Your task to perform on an android device: turn on notifications settings in the gmail app Image 0: 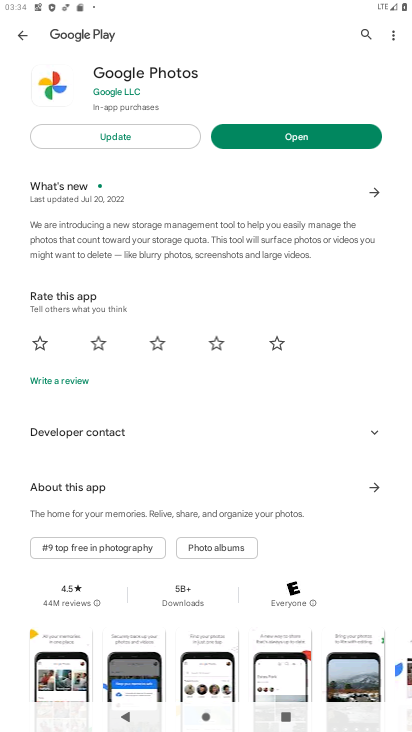
Step 0: press home button
Your task to perform on an android device: turn on notifications settings in the gmail app Image 1: 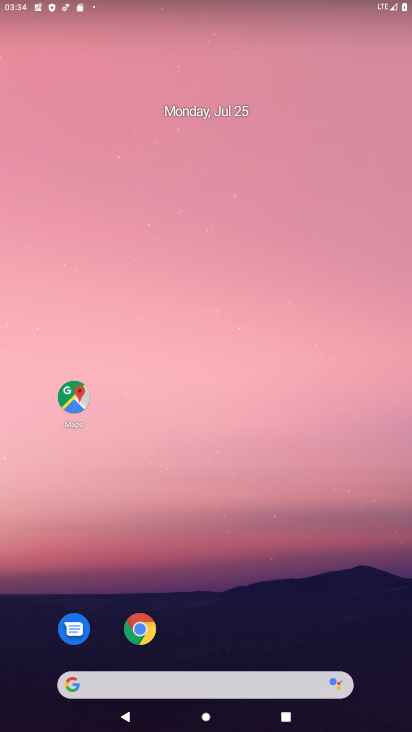
Step 1: drag from (221, 620) to (248, 0)
Your task to perform on an android device: turn on notifications settings in the gmail app Image 2: 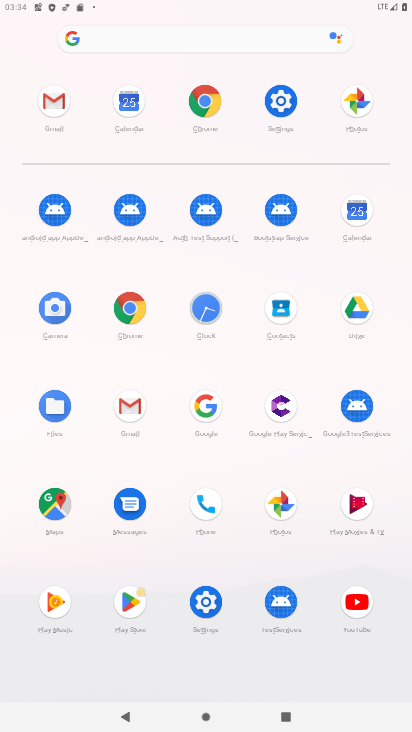
Step 2: click (48, 108)
Your task to perform on an android device: turn on notifications settings in the gmail app Image 3: 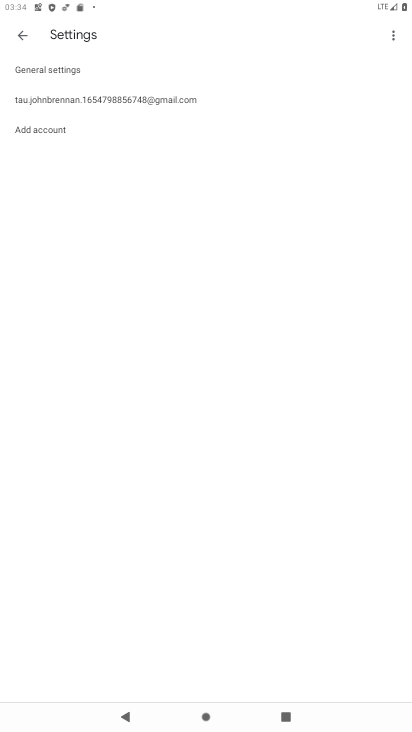
Step 3: click (58, 71)
Your task to perform on an android device: turn on notifications settings in the gmail app Image 4: 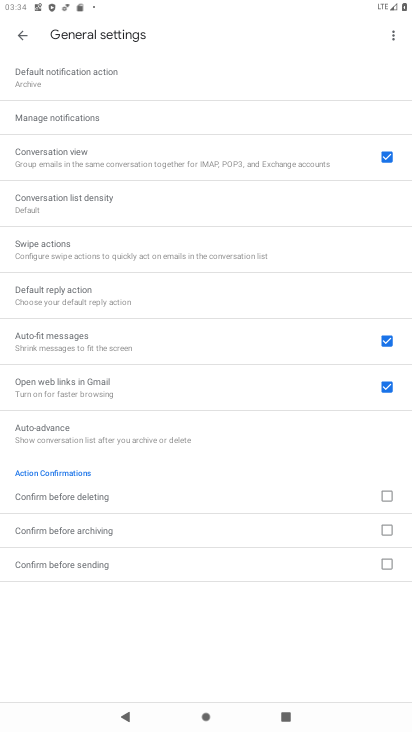
Step 4: click (61, 107)
Your task to perform on an android device: turn on notifications settings in the gmail app Image 5: 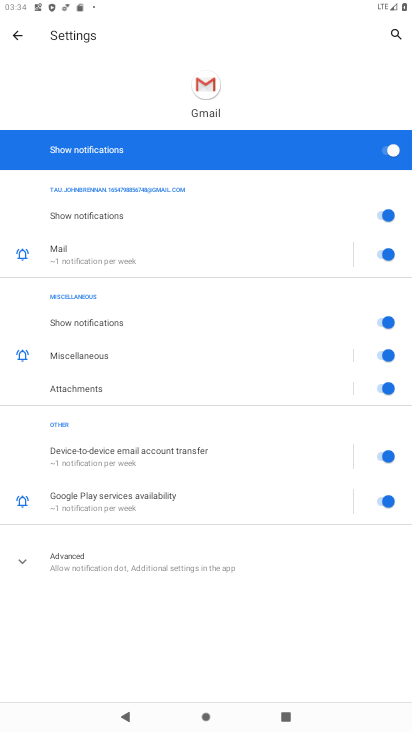
Step 5: task complete